Your task to perform on an android device: change the clock display to analog Image 0: 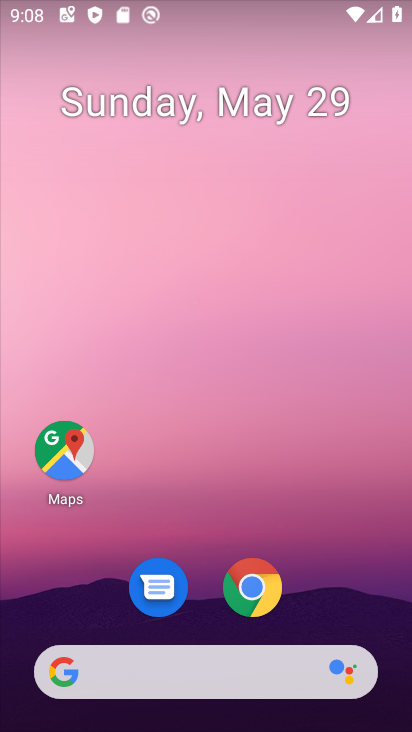
Step 0: drag from (219, 607) to (297, 16)
Your task to perform on an android device: change the clock display to analog Image 1: 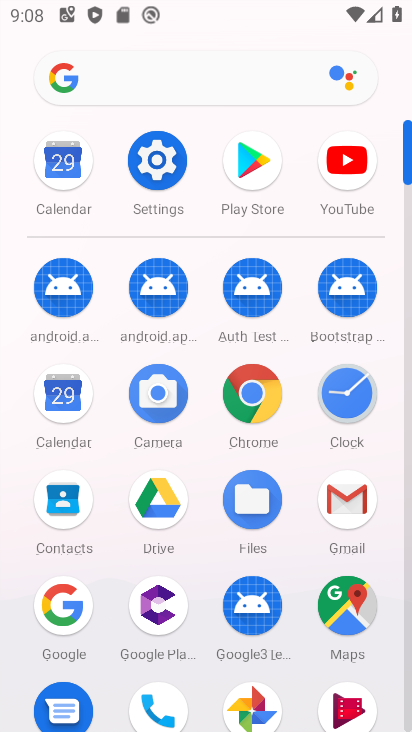
Step 1: click (348, 395)
Your task to perform on an android device: change the clock display to analog Image 2: 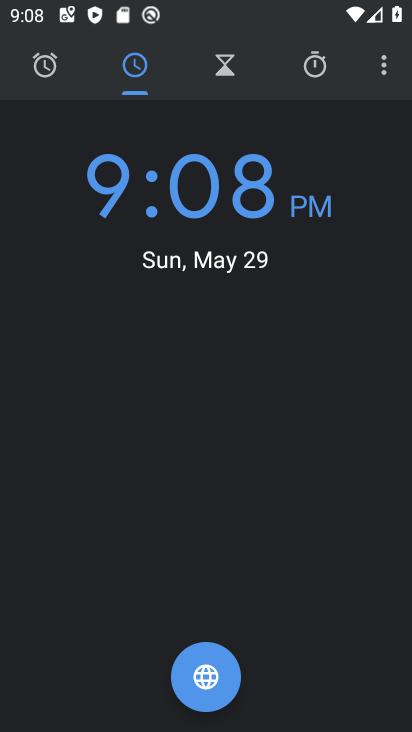
Step 2: click (387, 58)
Your task to perform on an android device: change the clock display to analog Image 3: 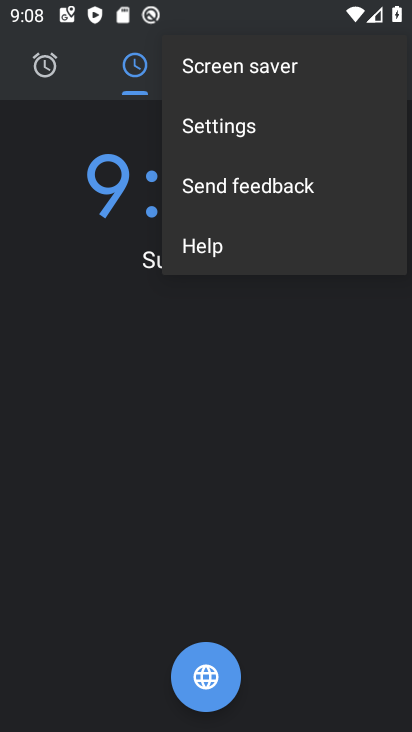
Step 3: click (217, 130)
Your task to perform on an android device: change the clock display to analog Image 4: 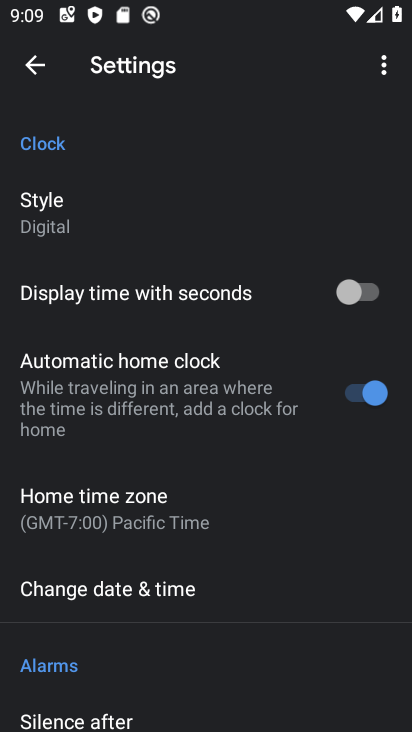
Step 4: click (108, 209)
Your task to perform on an android device: change the clock display to analog Image 5: 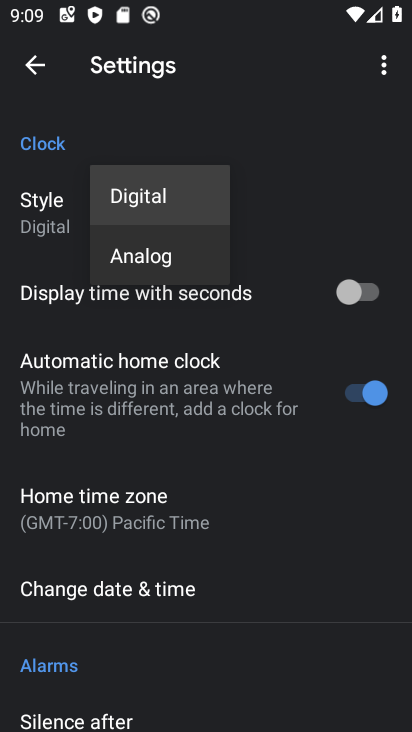
Step 5: click (137, 248)
Your task to perform on an android device: change the clock display to analog Image 6: 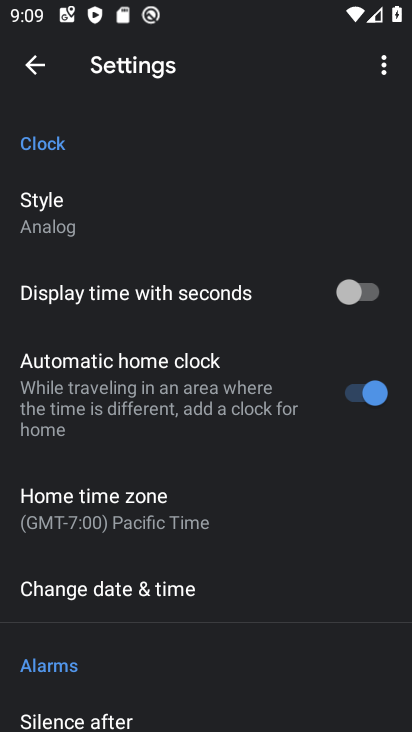
Step 6: task complete